Your task to perform on an android device: toggle notification dots Image 0: 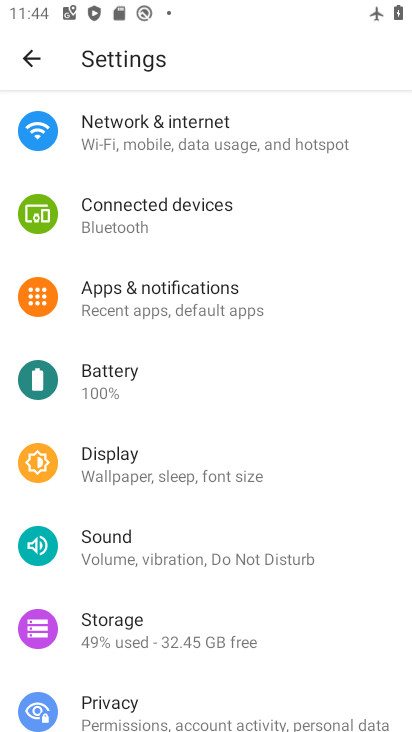
Step 0: click (174, 300)
Your task to perform on an android device: toggle notification dots Image 1: 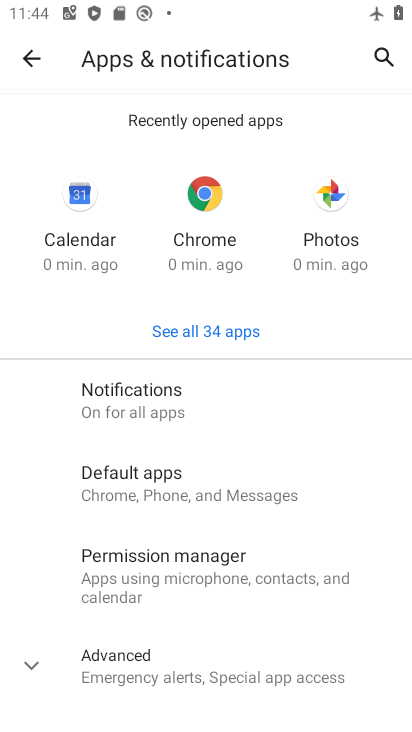
Step 1: click (120, 413)
Your task to perform on an android device: toggle notification dots Image 2: 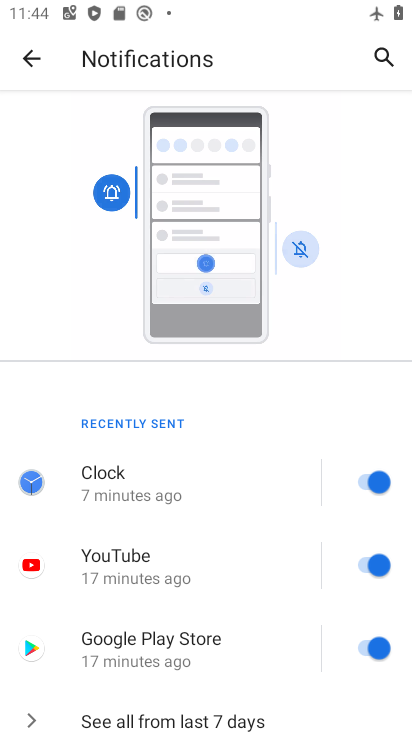
Step 2: drag from (136, 687) to (135, 294)
Your task to perform on an android device: toggle notification dots Image 3: 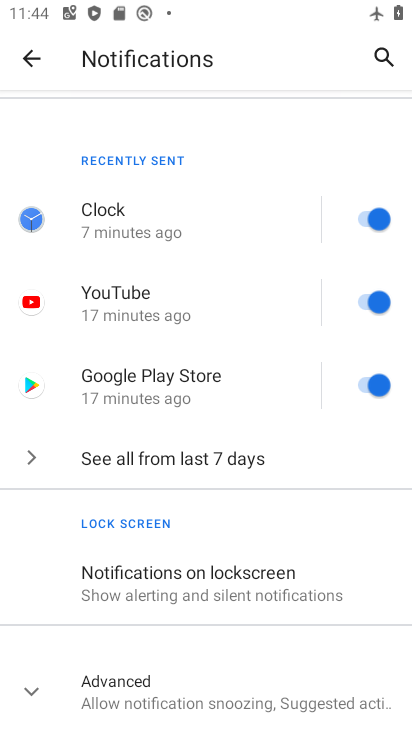
Step 3: click (154, 680)
Your task to perform on an android device: toggle notification dots Image 4: 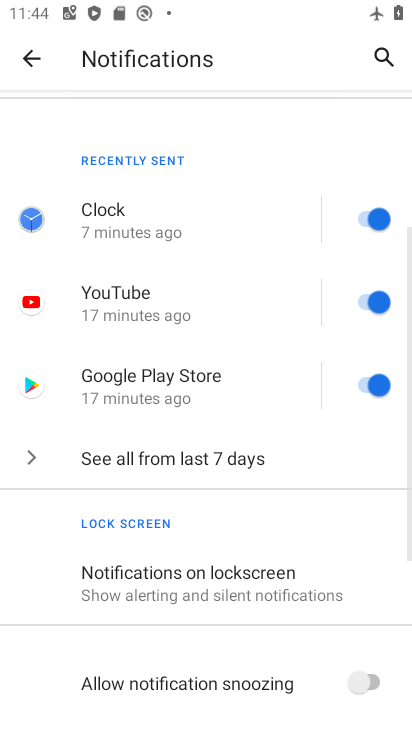
Step 4: drag from (185, 714) to (185, 384)
Your task to perform on an android device: toggle notification dots Image 5: 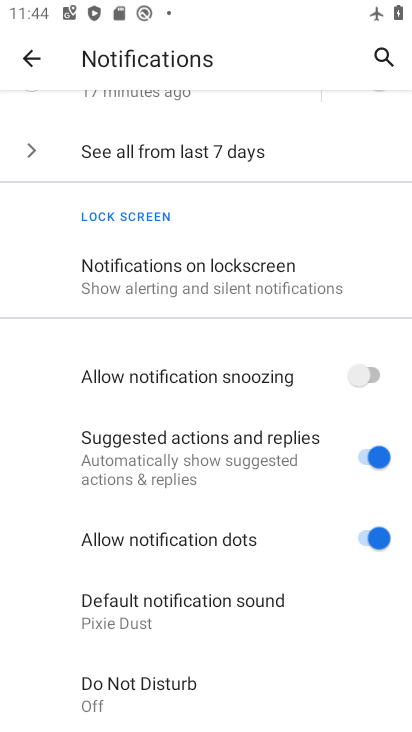
Step 5: click (360, 540)
Your task to perform on an android device: toggle notification dots Image 6: 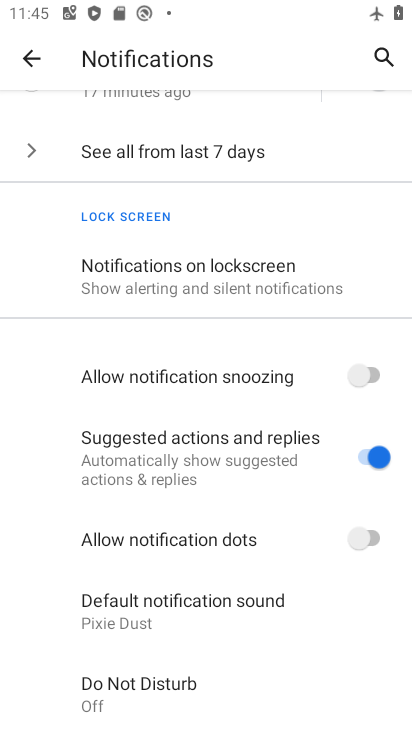
Step 6: task complete